Your task to perform on an android device: turn on javascript in the chrome app Image 0: 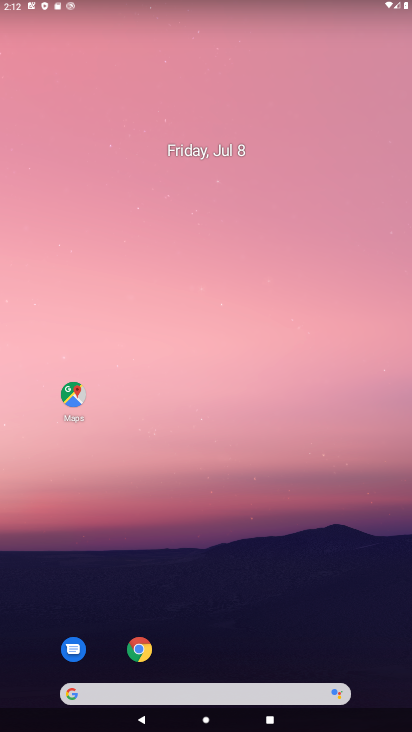
Step 0: click (139, 652)
Your task to perform on an android device: turn on javascript in the chrome app Image 1: 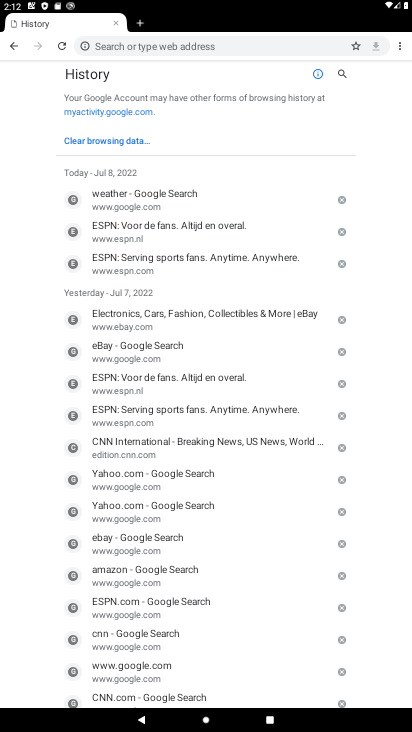
Step 1: click (398, 47)
Your task to perform on an android device: turn on javascript in the chrome app Image 2: 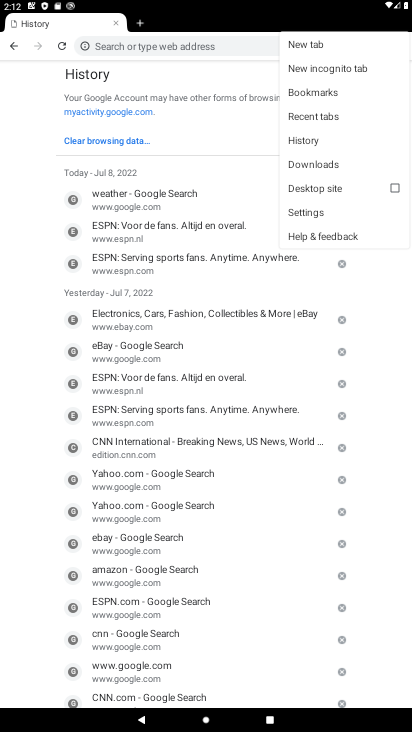
Step 2: click (313, 214)
Your task to perform on an android device: turn on javascript in the chrome app Image 3: 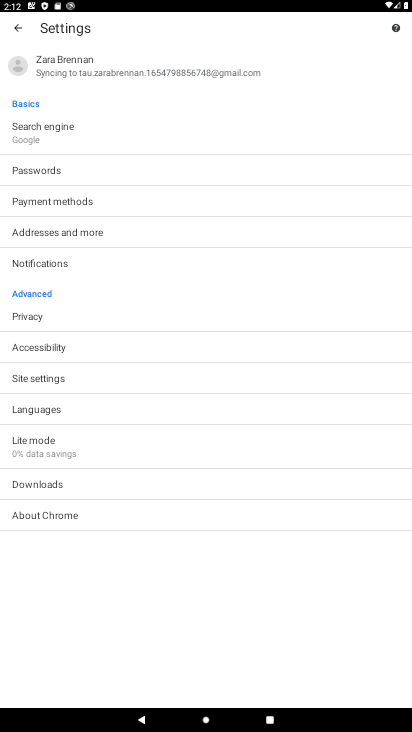
Step 3: click (30, 375)
Your task to perform on an android device: turn on javascript in the chrome app Image 4: 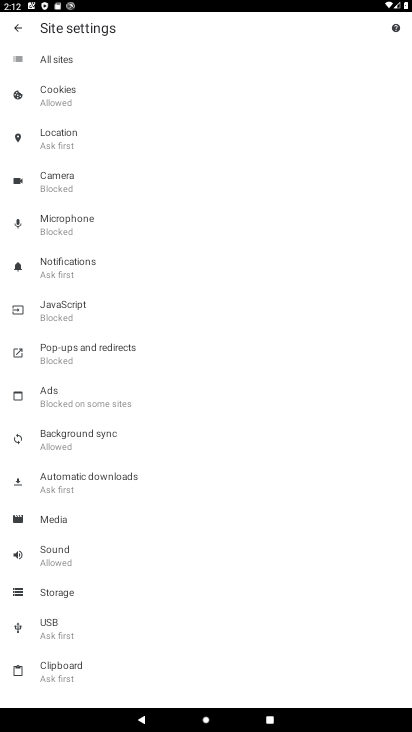
Step 4: click (56, 305)
Your task to perform on an android device: turn on javascript in the chrome app Image 5: 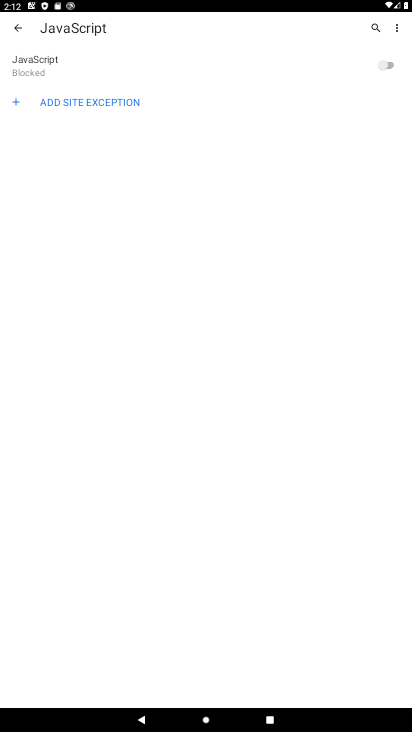
Step 5: click (391, 64)
Your task to perform on an android device: turn on javascript in the chrome app Image 6: 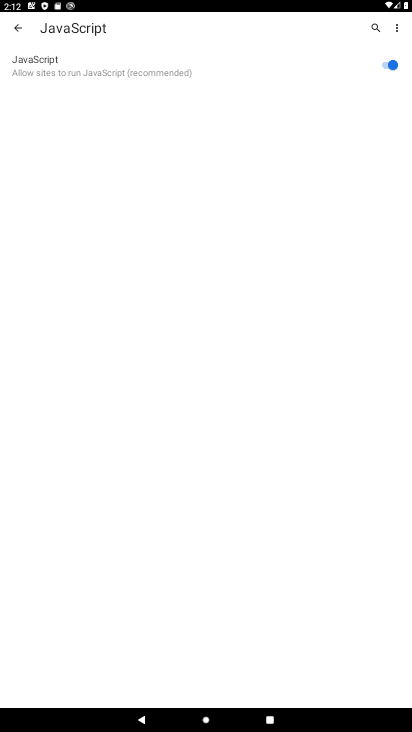
Step 6: task complete